Your task to perform on an android device: What is the news today? Image 0: 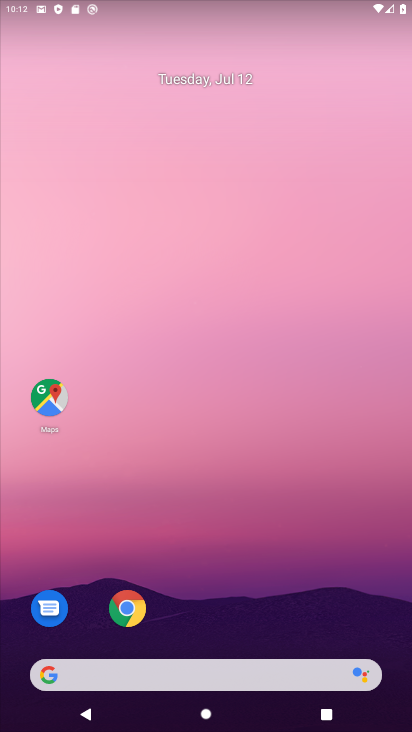
Step 0: drag from (0, 260) to (395, 567)
Your task to perform on an android device: What is the news today? Image 1: 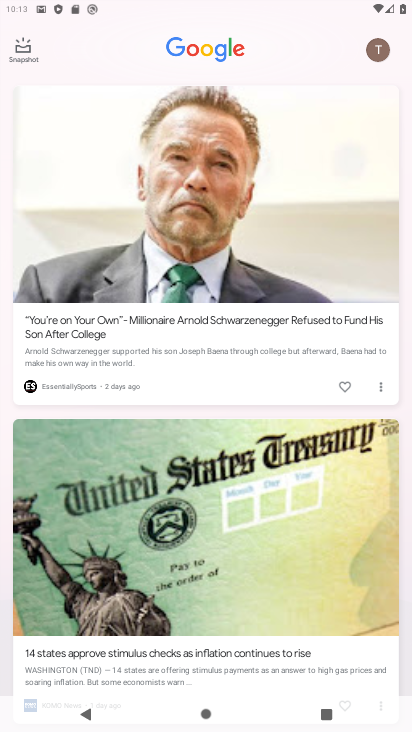
Step 1: task complete